Your task to perform on an android device: Go to eBay Image 0: 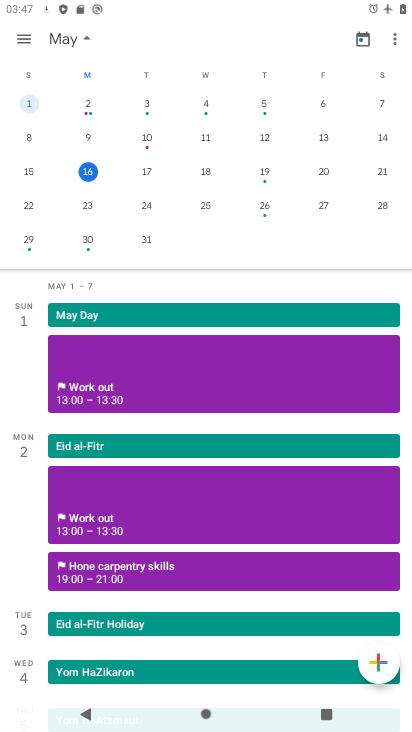
Step 0: press home button
Your task to perform on an android device: Go to eBay Image 1: 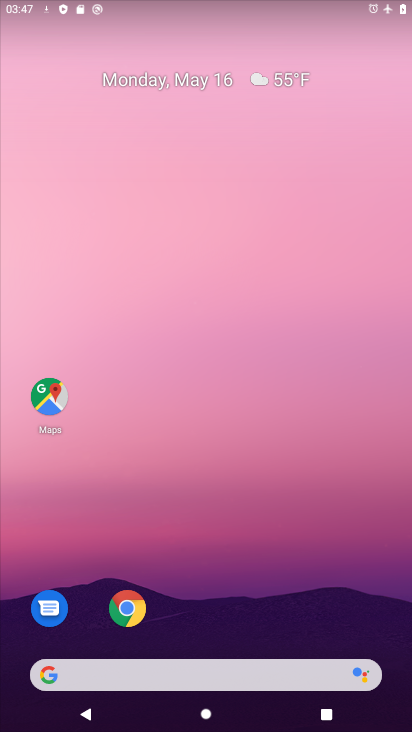
Step 1: click (142, 608)
Your task to perform on an android device: Go to eBay Image 2: 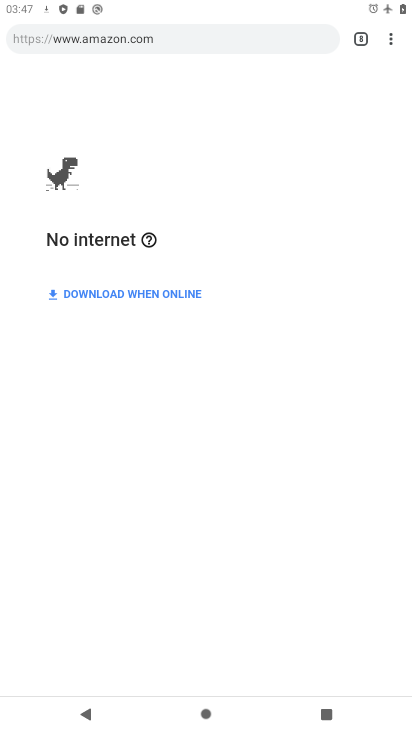
Step 2: click (358, 39)
Your task to perform on an android device: Go to eBay Image 3: 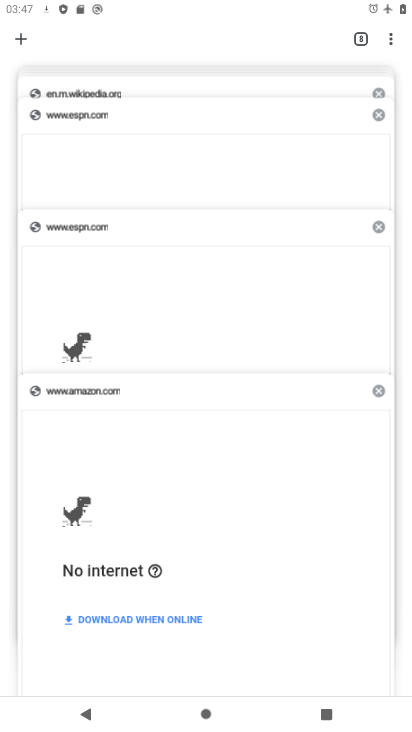
Step 3: click (23, 38)
Your task to perform on an android device: Go to eBay Image 4: 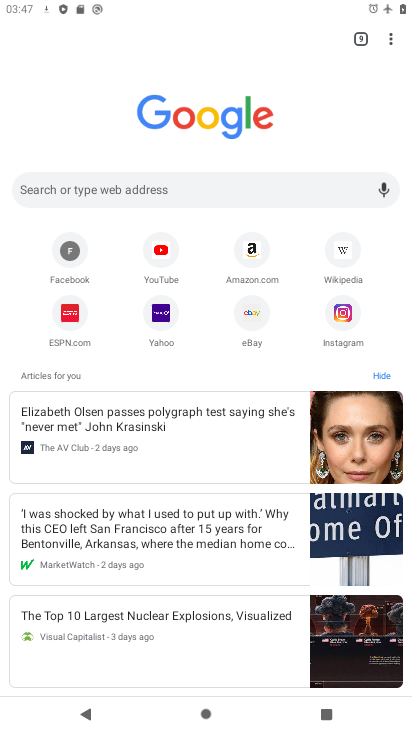
Step 4: click (247, 328)
Your task to perform on an android device: Go to eBay Image 5: 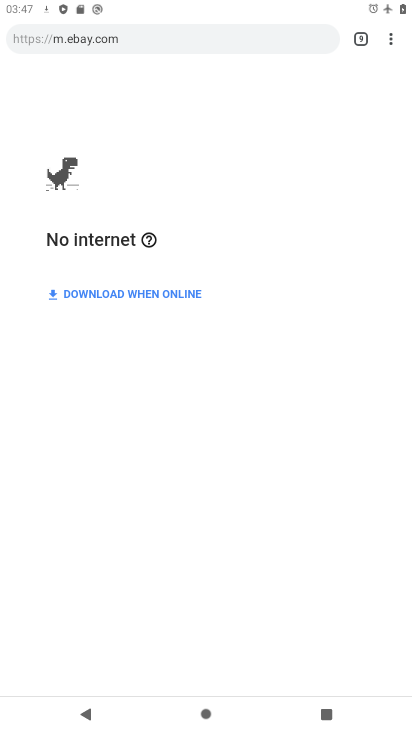
Step 5: task complete